Your task to perform on an android device: Search for vegetarian restaurants on Maps Image 0: 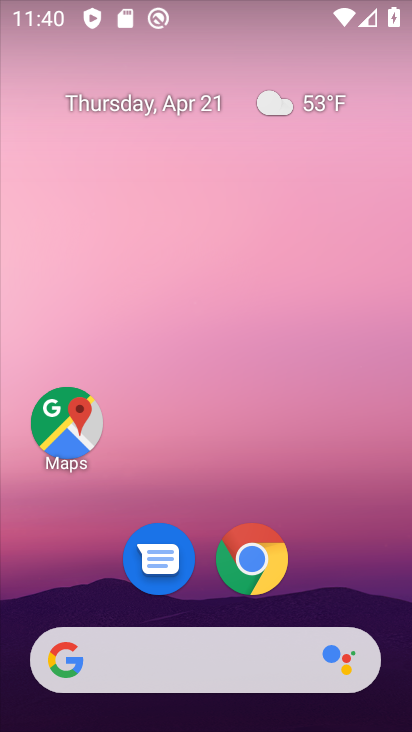
Step 0: click (62, 425)
Your task to perform on an android device: Search for vegetarian restaurants on Maps Image 1: 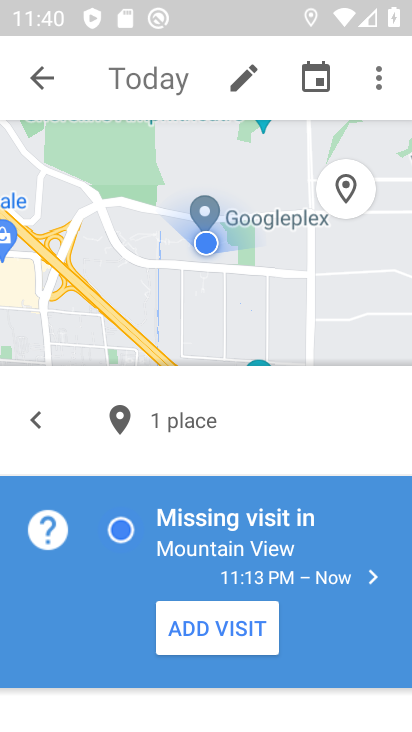
Step 1: click (56, 83)
Your task to perform on an android device: Search for vegetarian restaurants on Maps Image 2: 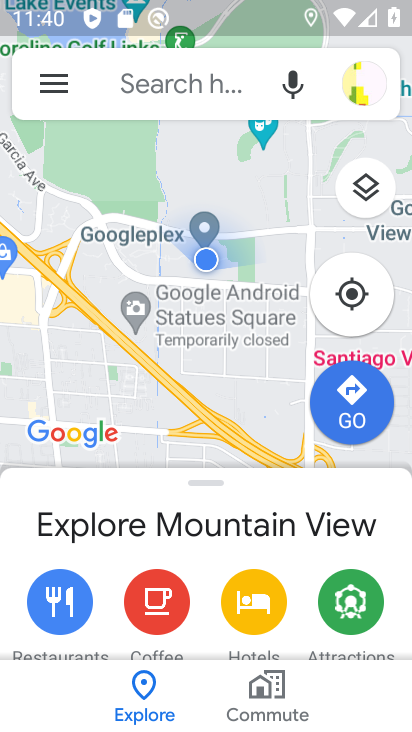
Step 2: click (133, 84)
Your task to perform on an android device: Search for vegetarian restaurants on Maps Image 3: 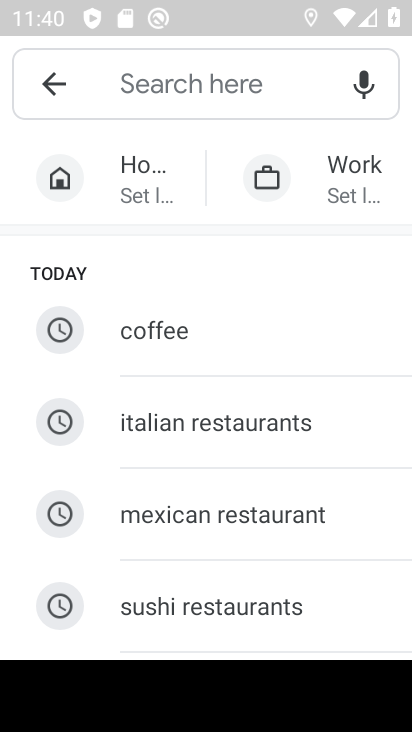
Step 3: type "vegetarian restaurant"
Your task to perform on an android device: Search for vegetarian restaurants on Maps Image 4: 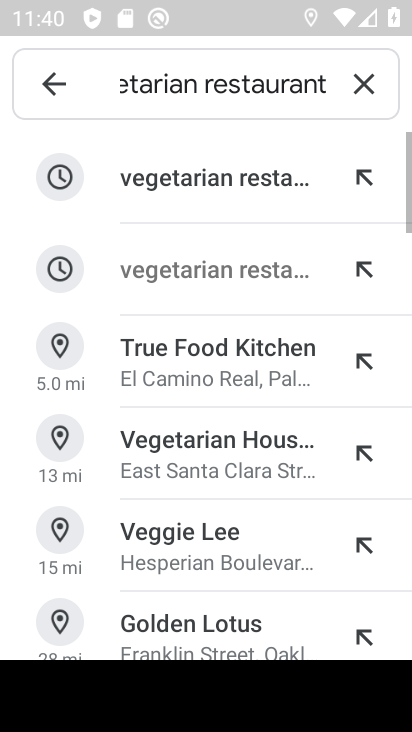
Step 4: click (184, 186)
Your task to perform on an android device: Search for vegetarian restaurants on Maps Image 5: 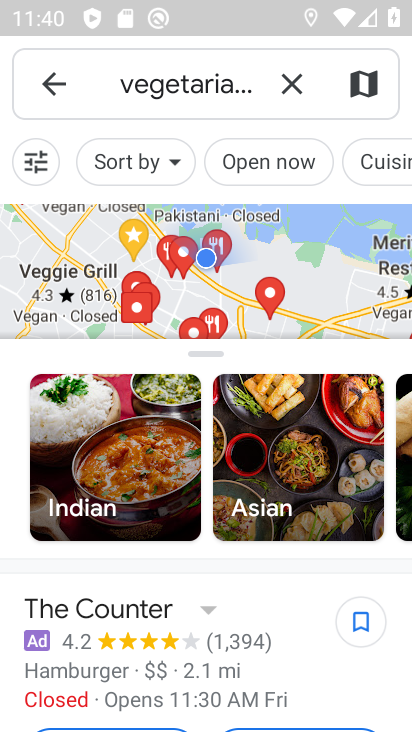
Step 5: task complete